Your task to perform on an android device: Open Yahoo.com Image 0: 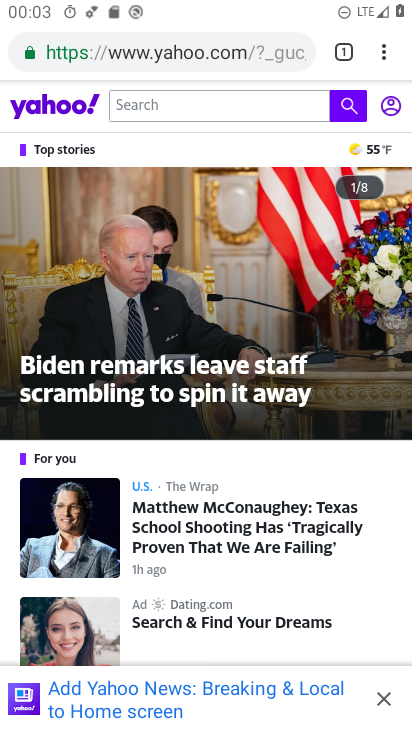
Step 0: press home button
Your task to perform on an android device: Open Yahoo.com Image 1: 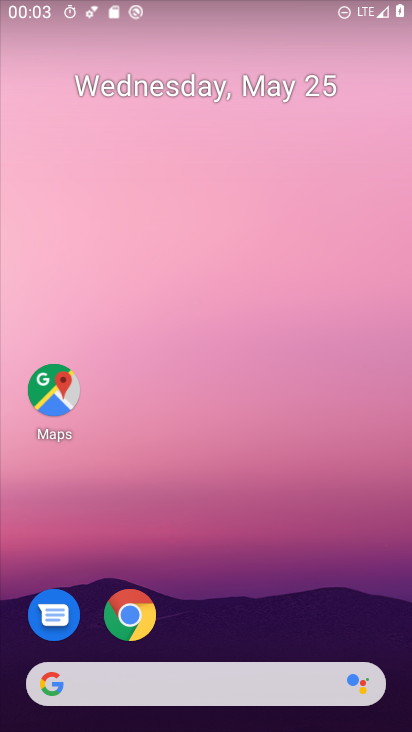
Step 1: drag from (285, 670) to (397, 56)
Your task to perform on an android device: Open Yahoo.com Image 2: 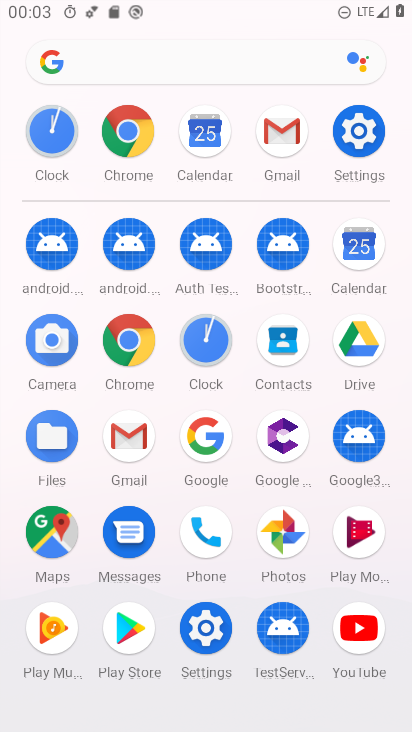
Step 2: click (141, 135)
Your task to perform on an android device: Open Yahoo.com Image 3: 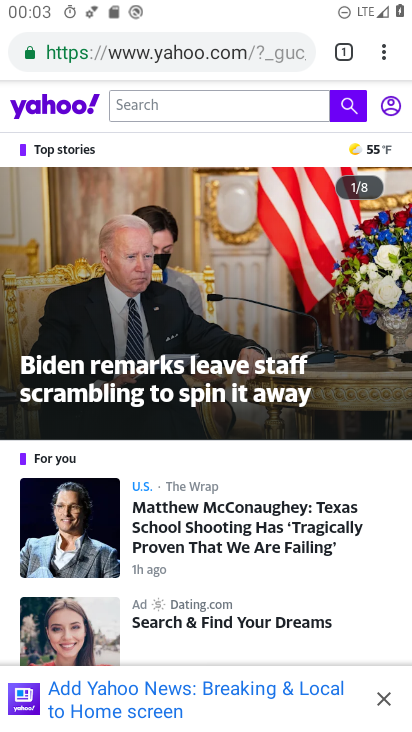
Step 3: click (197, 51)
Your task to perform on an android device: Open Yahoo.com Image 4: 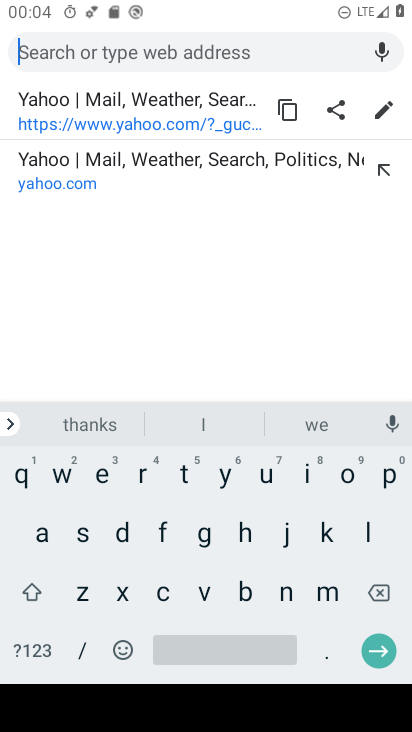
Step 4: click (66, 126)
Your task to perform on an android device: Open Yahoo.com Image 5: 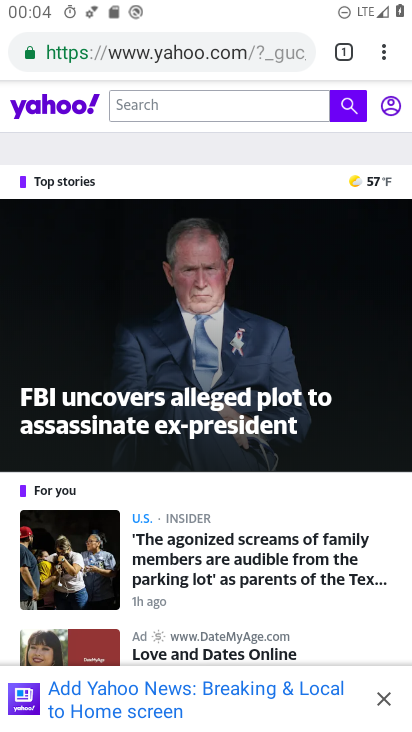
Step 5: task complete